Your task to perform on an android device: Open CNN.com Image 0: 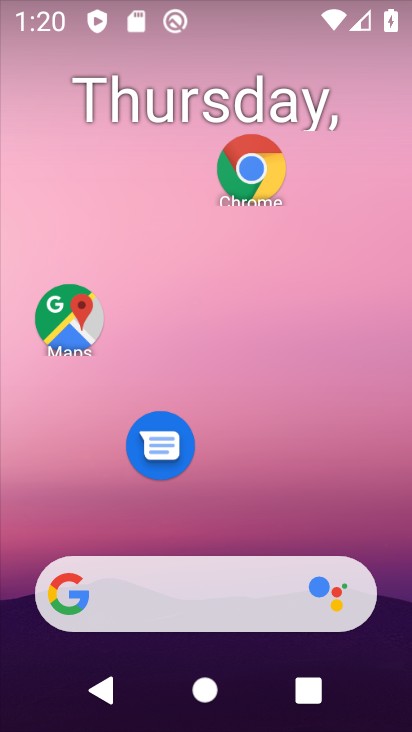
Step 0: drag from (298, 641) to (398, 20)
Your task to perform on an android device: Open CNN.com Image 1: 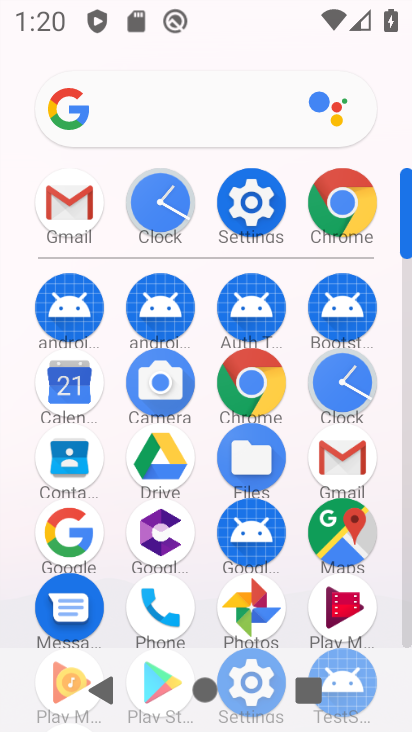
Step 1: click (351, 193)
Your task to perform on an android device: Open CNN.com Image 2: 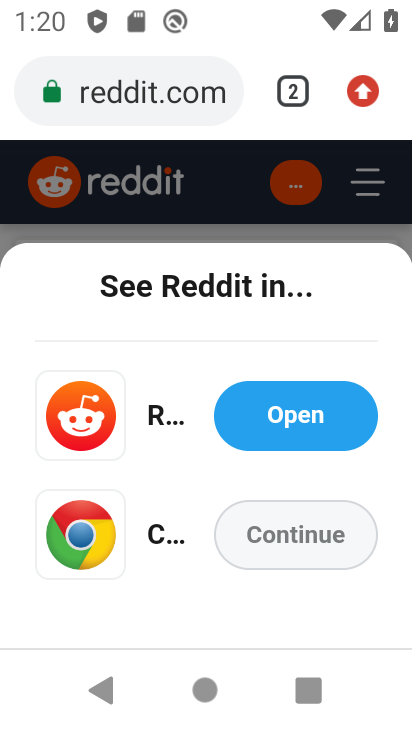
Step 2: click (180, 107)
Your task to perform on an android device: Open CNN.com Image 3: 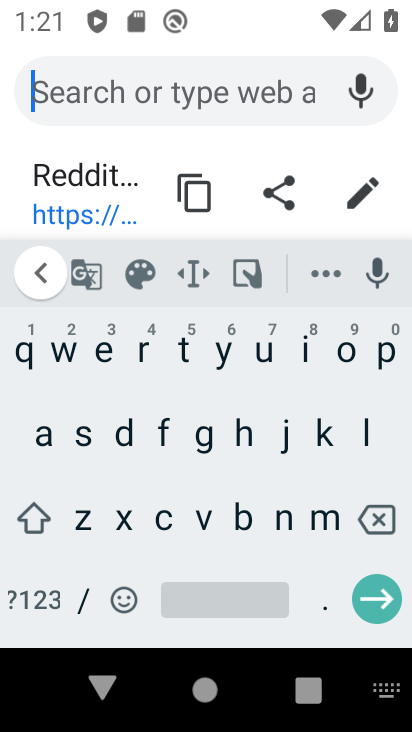
Step 3: click (163, 523)
Your task to perform on an android device: Open CNN.com Image 4: 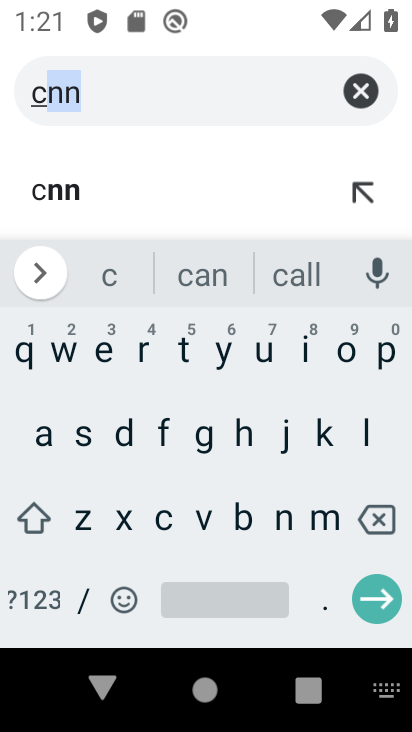
Step 4: click (152, 94)
Your task to perform on an android device: Open CNN.com Image 5: 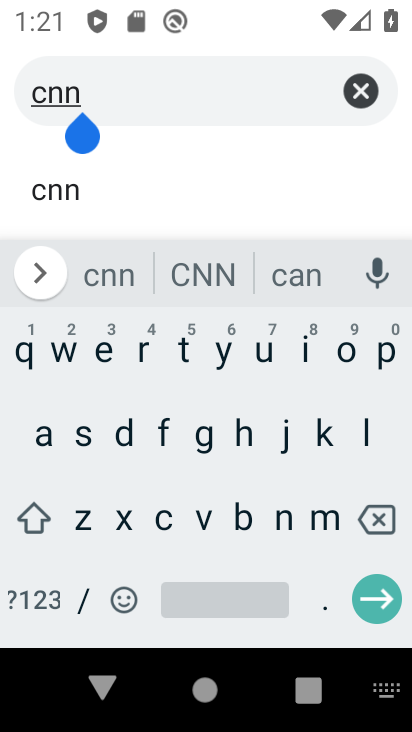
Step 5: click (322, 610)
Your task to perform on an android device: Open CNN.com Image 6: 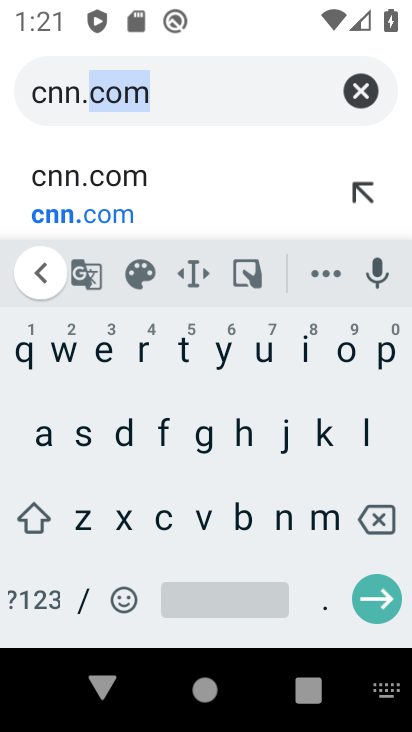
Step 6: click (205, 84)
Your task to perform on an android device: Open CNN.com Image 7: 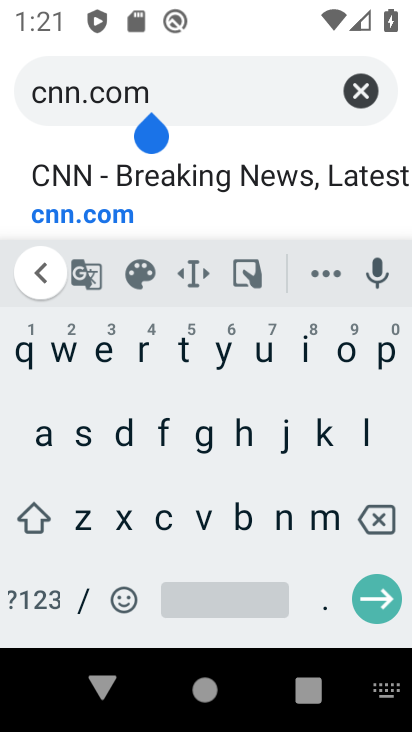
Step 7: click (382, 599)
Your task to perform on an android device: Open CNN.com Image 8: 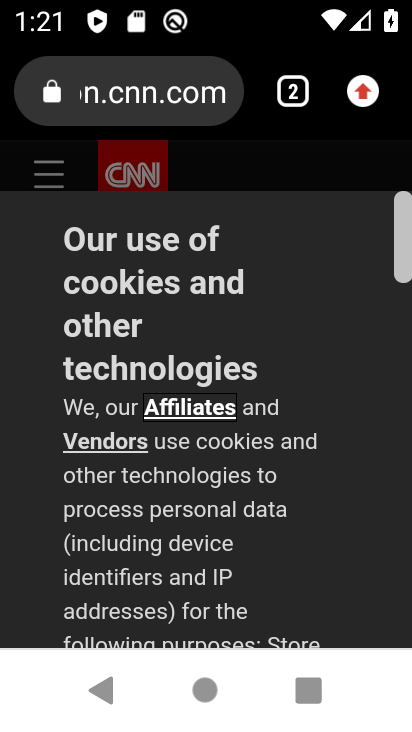
Step 8: task complete